Your task to perform on an android device: Open Amazon Image 0: 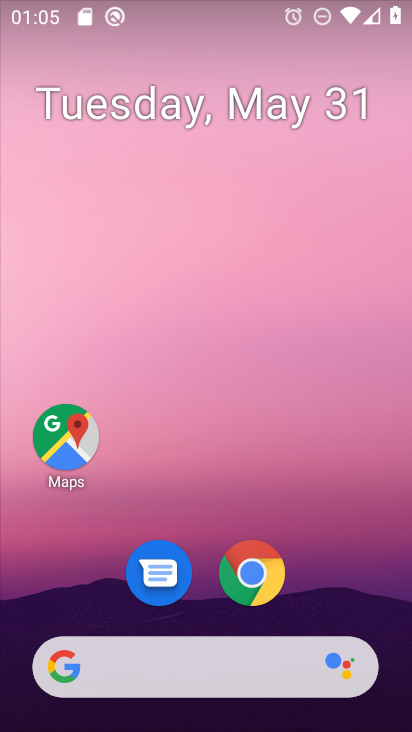
Step 0: drag from (146, 686) to (401, 161)
Your task to perform on an android device: Open Amazon Image 1: 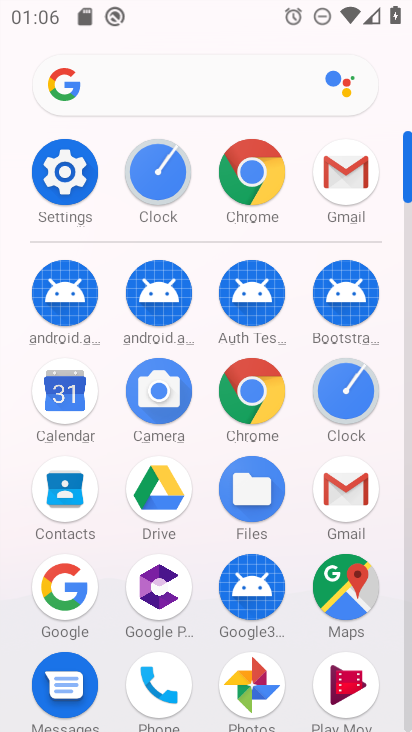
Step 1: click (262, 165)
Your task to perform on an android device: Open Amazon Image 2: 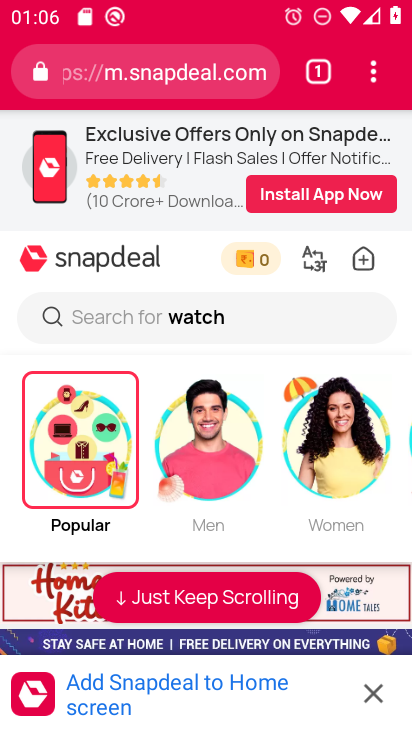
Step 2: click (367, 74)
Your task to perform on an android device: Open Amazon Image 3: 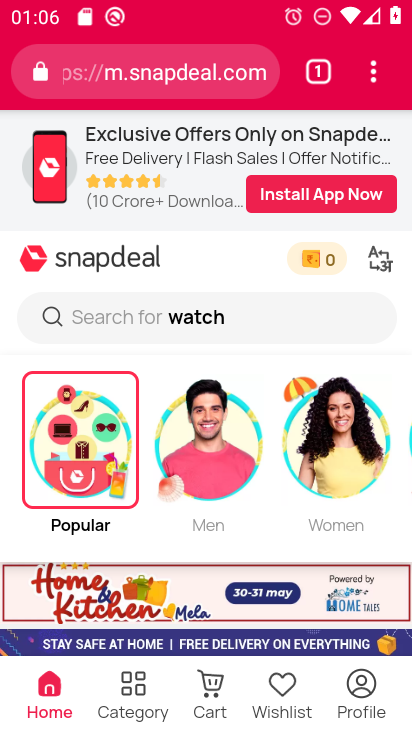
Step 3: click (374, 73)
Your task to perform on an android device: Open Amazon Image 4: 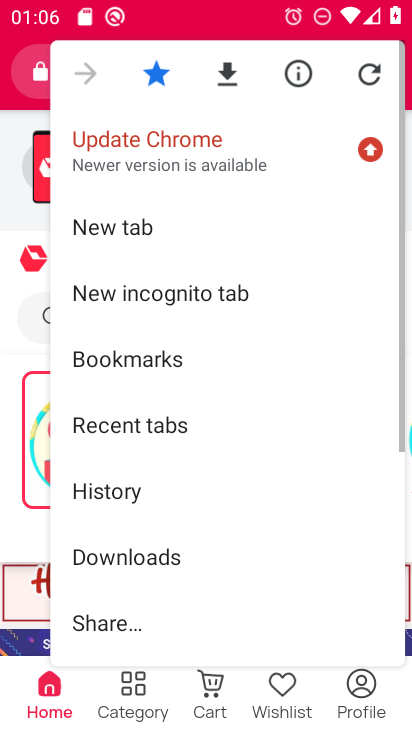
Step 4: click (374, 73)
Your task to perform on an android device: Open Amazon Image 5: 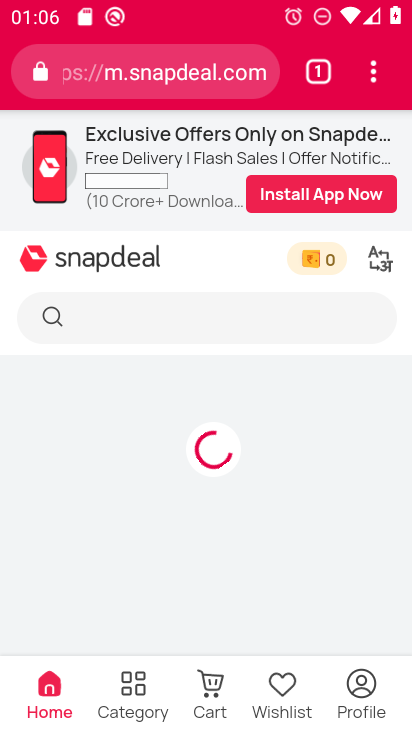
Step 5: click (380, 71)
Your task to perform on an android device: Open Amazon Image 6: 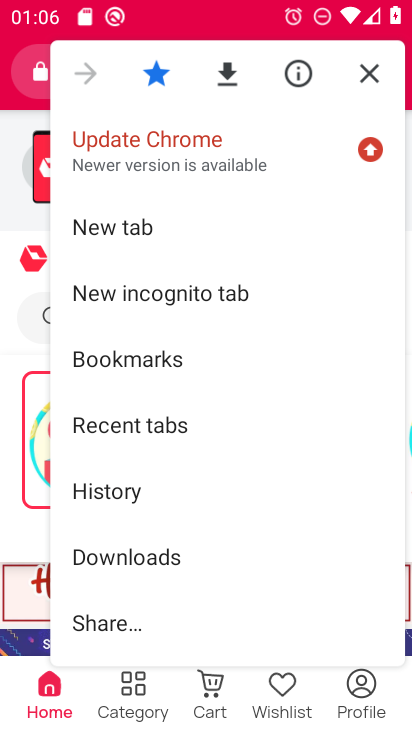
Step 6: click (140, 232)
Your task to perform on an android device: Open Amazon Image 7: 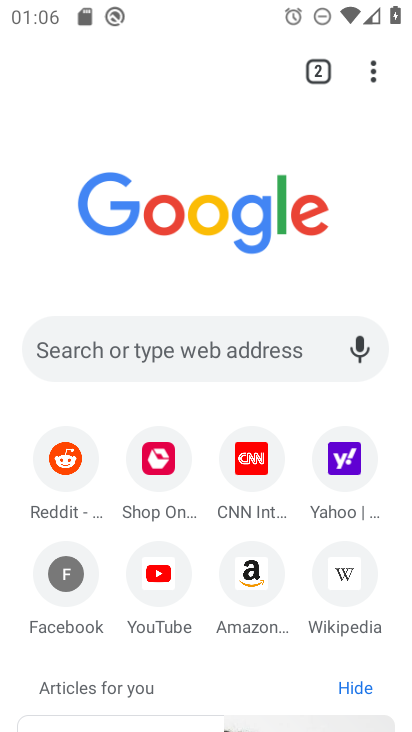
Step 7: click (240, 582)
Your task to perform on an android device: Open Amazon Image 8: 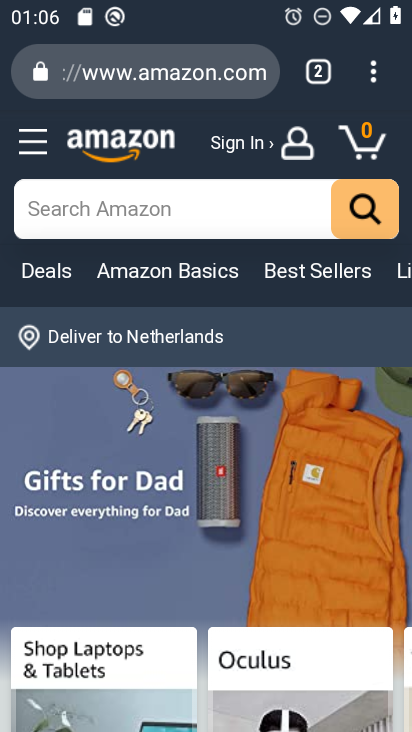
Step 8: task complete